Your task to perform on an android device: turn off javascript in the chrome app Image 0: 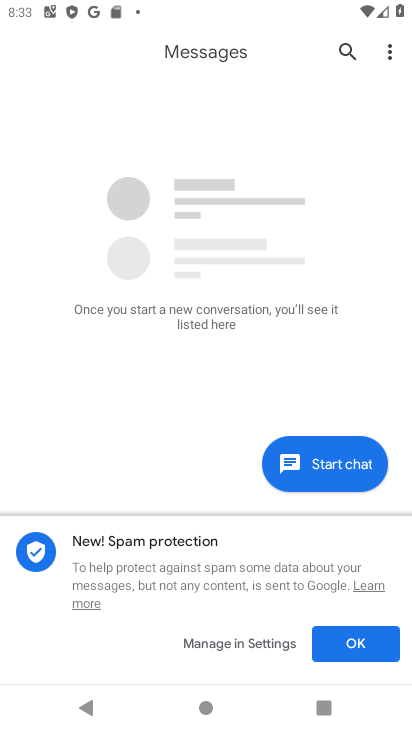
Step 0: press home button
Your task to perform on an android device: turn off javascript in the chrome app Image 1: 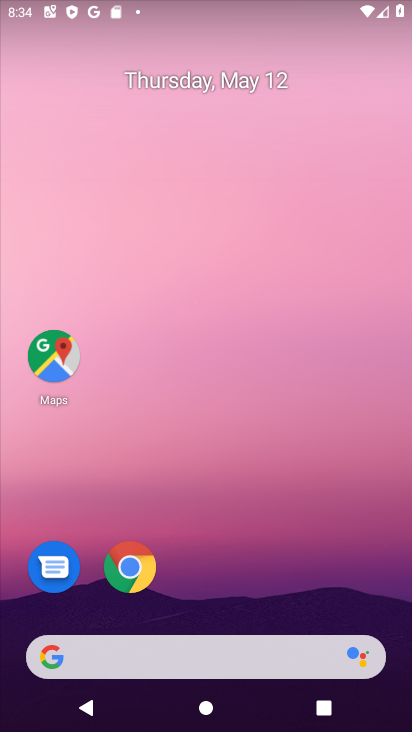
Step 1: click (137, 569)
Your task to perform on an android device: turn off javascript in the chrome app Image 2: 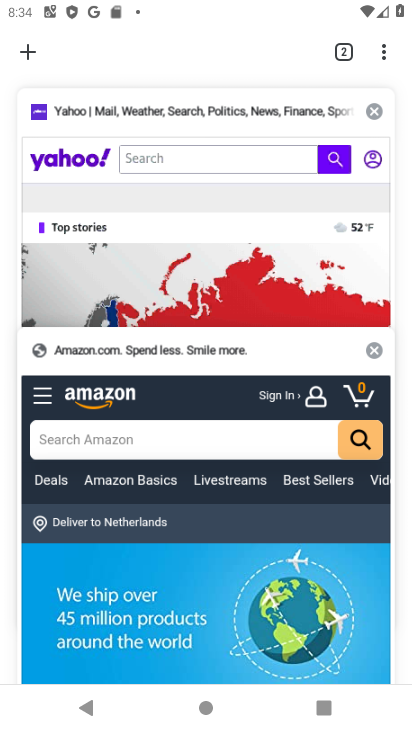
Step 2: click (384, 59)
Your task to perform on an android device: turn off javascript in the chrome app Image 3: 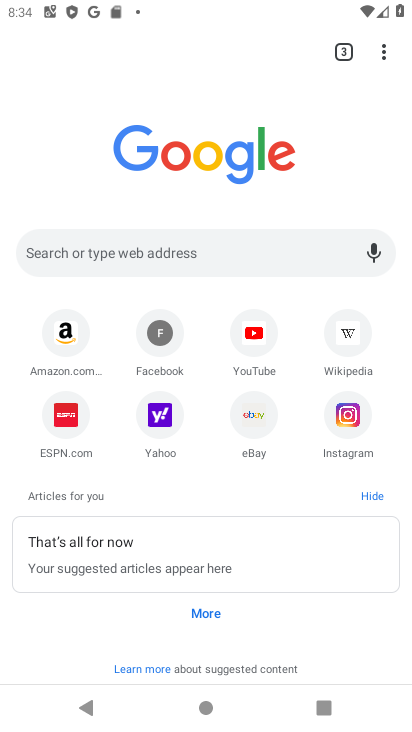
Step 3: click (389, 63)
Your task to perform on an android device: turn off javascript in the chrome app Image 4: 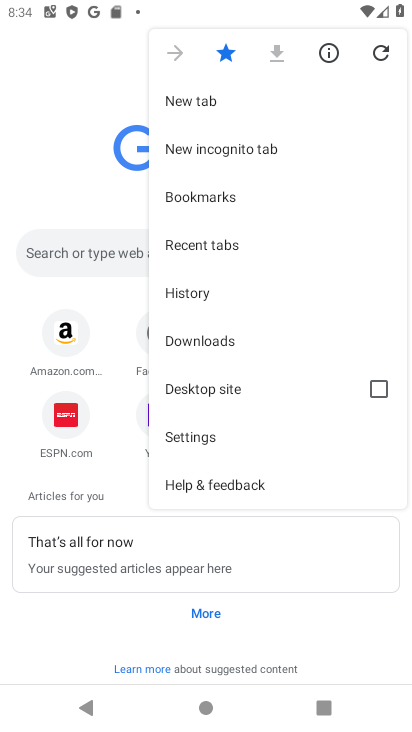
Step 4: click (215, 445)
Your task to perform on an android device: turn off javascript in the chrome app Image 5: 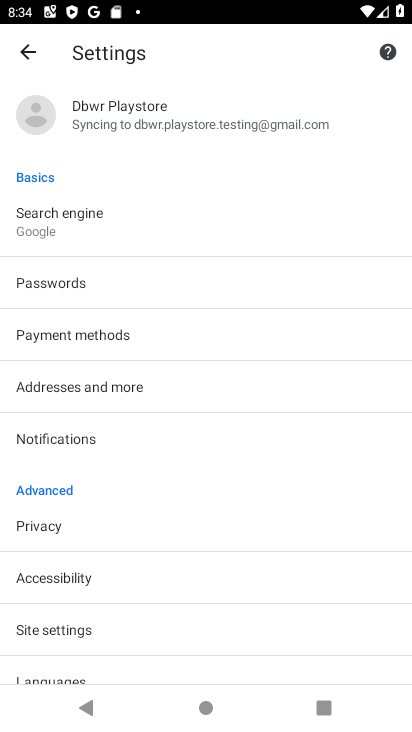
Step 5: drag from (196, 502) to (255, 90)
Your task to perform on an android device: turn off javascript in the chrome app Image 6: 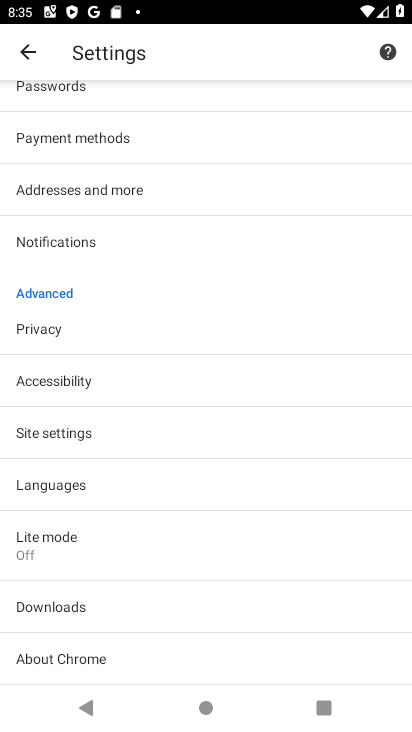
Step 6: drag from (175, 536) to (168, 478)
Your task to perform on an android device: turn off javascript in the chrome app Image 7: 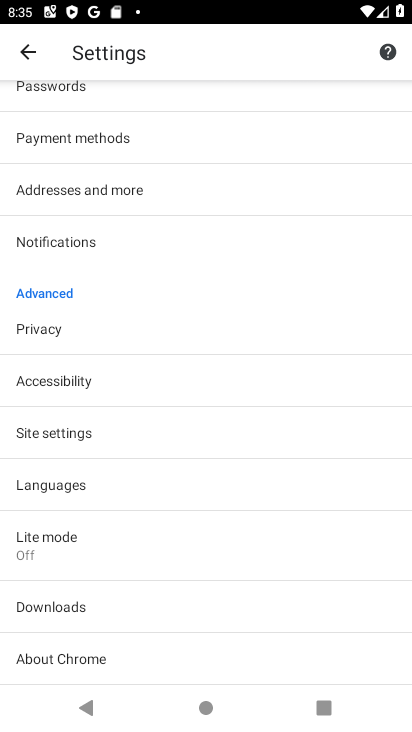
Step 7: click (72, 442)
Your task to perform on an android device: turn off javascript in the chrome app Image 8: 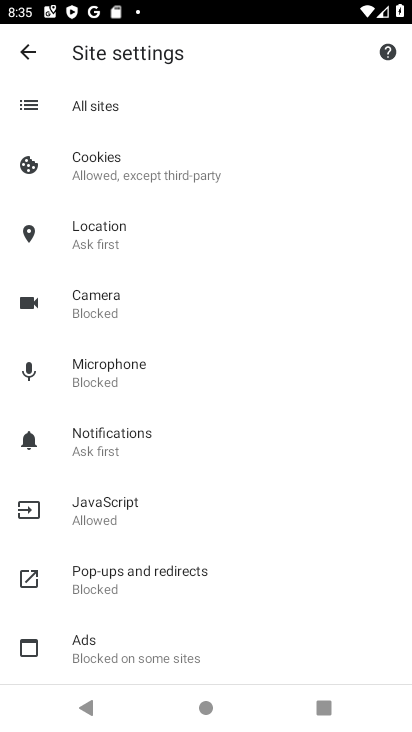
Step 8: drag from (167, 511) to (167, 345)
Your task to perform on an android device: turn off javascript in the chrome app Image 9: 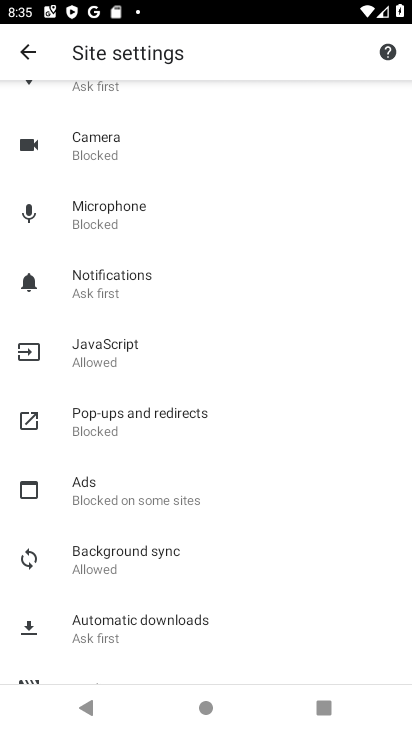
Step 9: click (153, 348)
Your task to perform on an android device: turn off javascript in the chrome app Image 10: 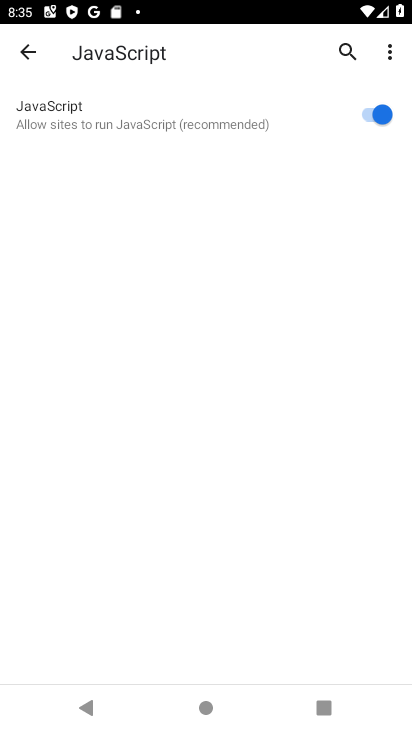
Step 10: click (366, 119)
Your task to perform on an android device: turn off javascript in the chrome app Image 11: 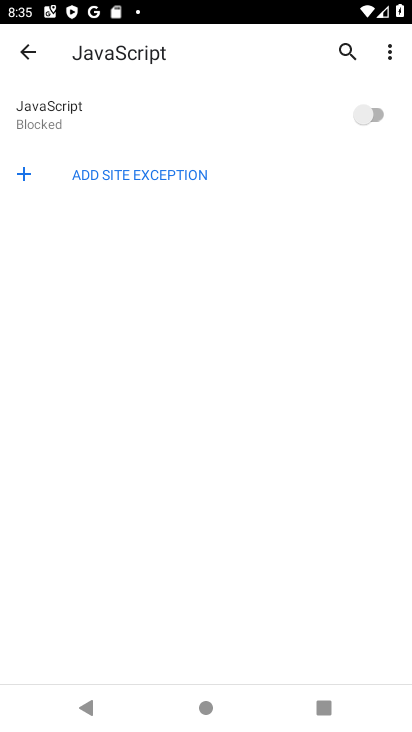
Step 11: task complete